Your task to perform on an android device: Open Yahoo.com Image 0: 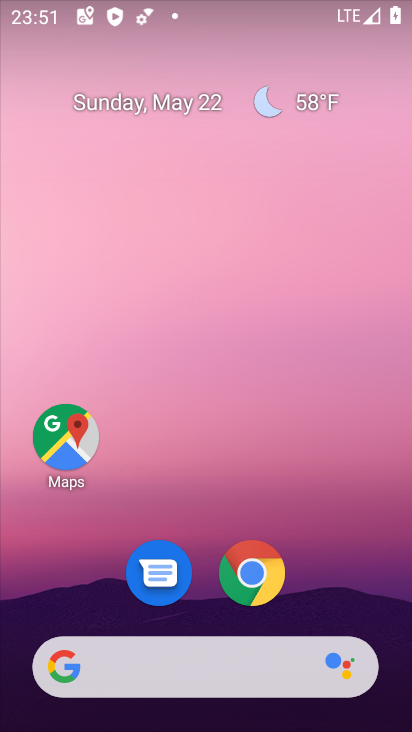
Step 0: click (259, 578)
Your task to perform on an android device: Open Yahoo.com Image 1: 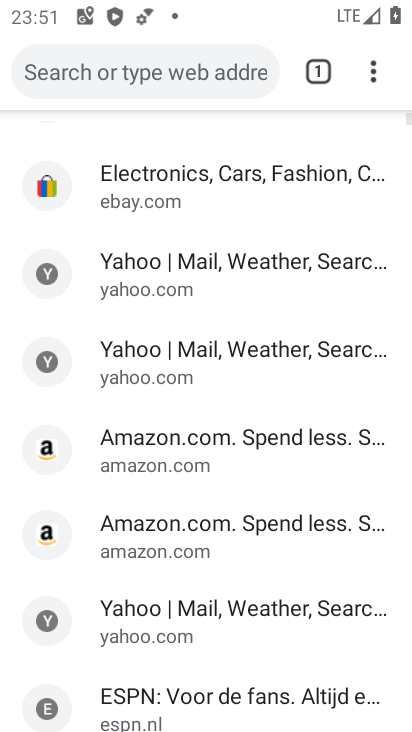
Step 1: click (158, 68)
Your task to perform on an android device: Open Yahoo.com Image 2: 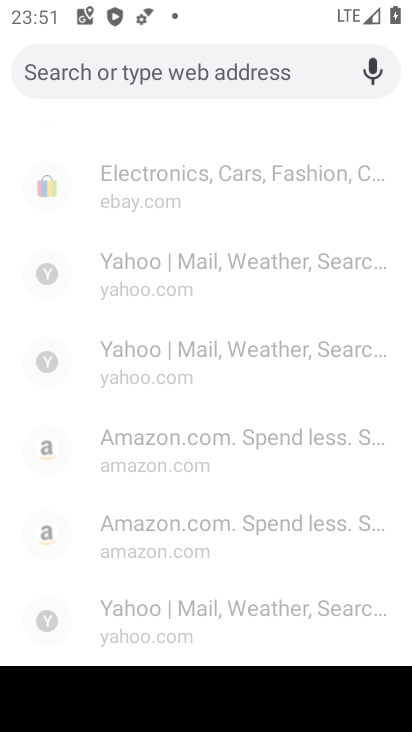
Step 2: type "yahoo.com"
Your task to perform on an android device: Open Yahoo.com Image 3: 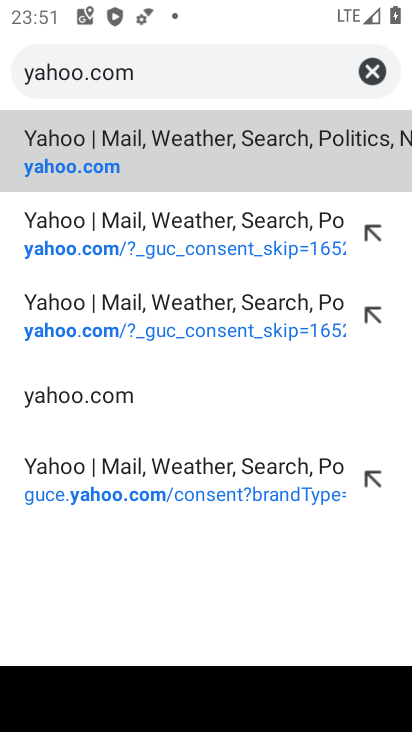
Step 3: click (158, 145)
Your task to perform on an android device: Open Yahoo.com Image 4: 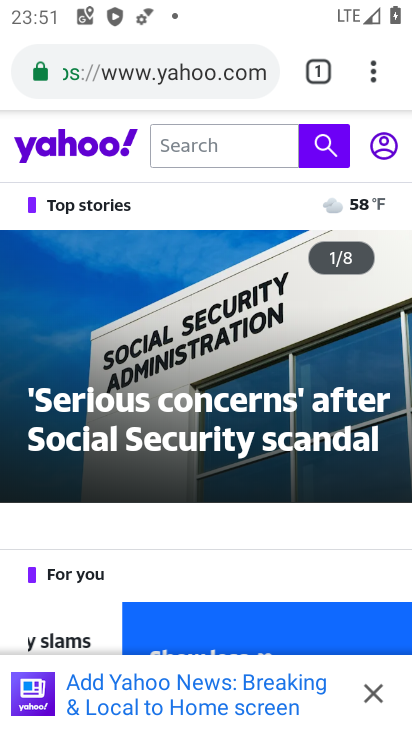
Step 4: task complete